Your task to perform on an android device: Open battery settings Image 0: 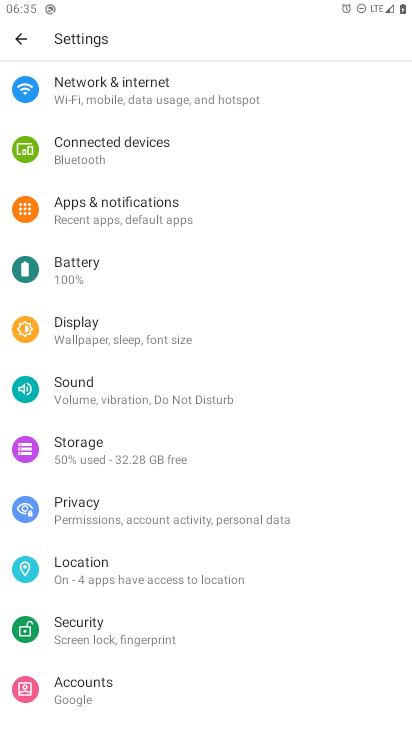
Step 0: press home button
Your task to perform on an android device: Open battery settings Image 1: 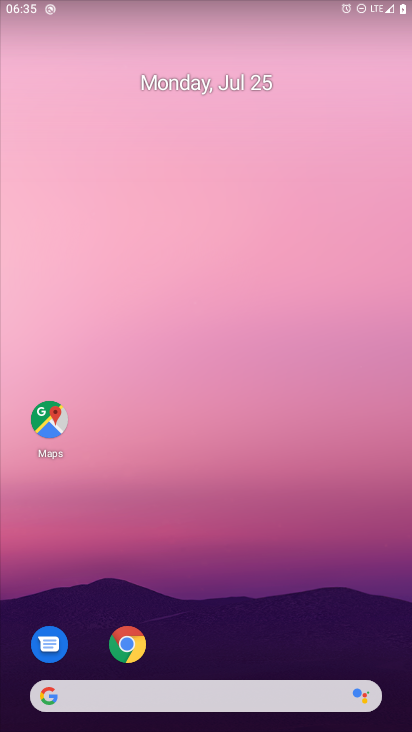
Step 1: drag from (213, 650) to (182, 172)
Your task to perform on an android device: Open battery settings Image 2: 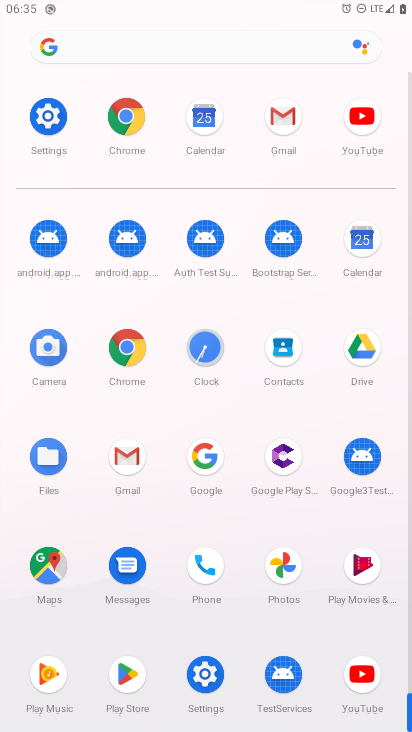
Step 2: click (53, 123)
Your task to perform on an android device: Open battery settings Image 3: 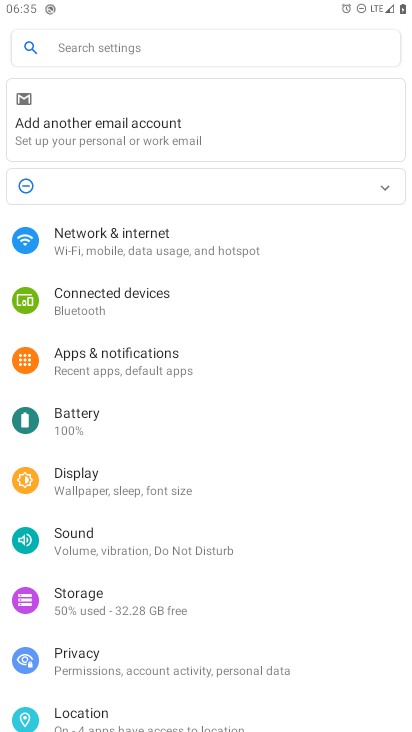
Step 3: click (71, 422)
Your task to perform on an android device: Open battery settings Image 4: 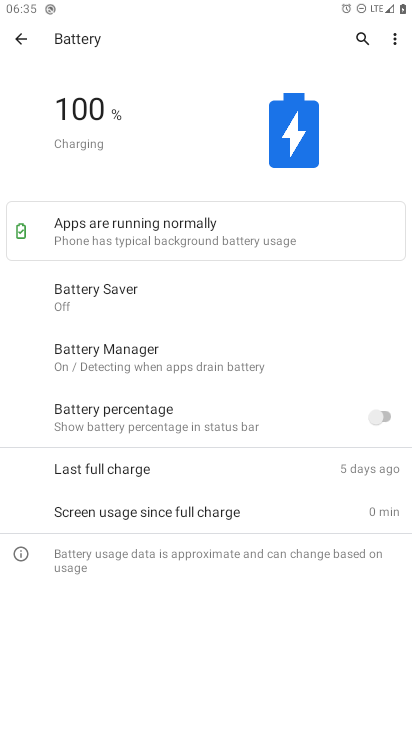
Step 4: task complete